Your task to perform on an android device: Open the stopwatch Image 0: 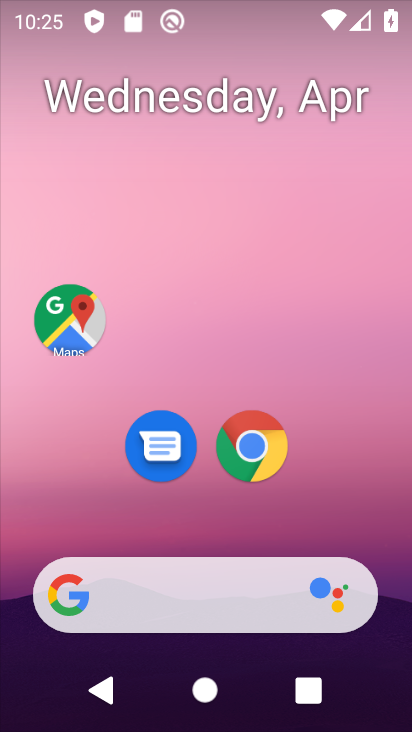
Step 0: drag from (207, 500) to (0, 414)
Your task to perform on an android device: Open the stopwatch Image 1: 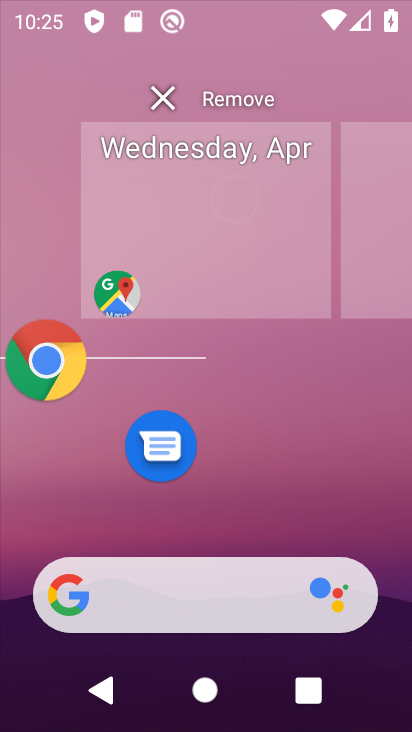
Step 1: click (182, 516)
Your task to perform on an android device: Open the stopwatch Image 2: 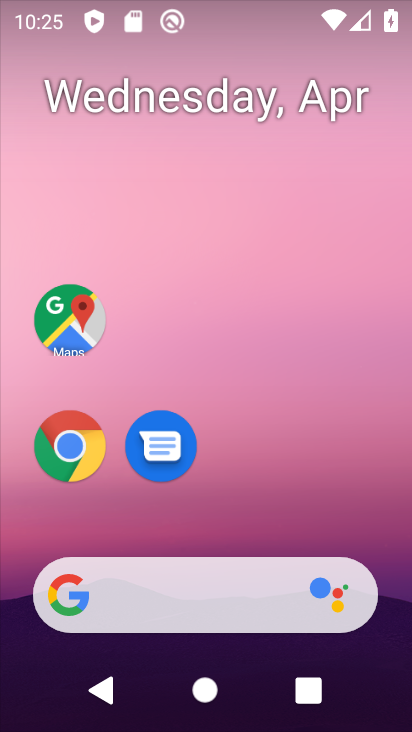
Step 2: drag from (214, 557) to (193, 93)
Your task to perform on an android device: Open the stopwatch Image 3: 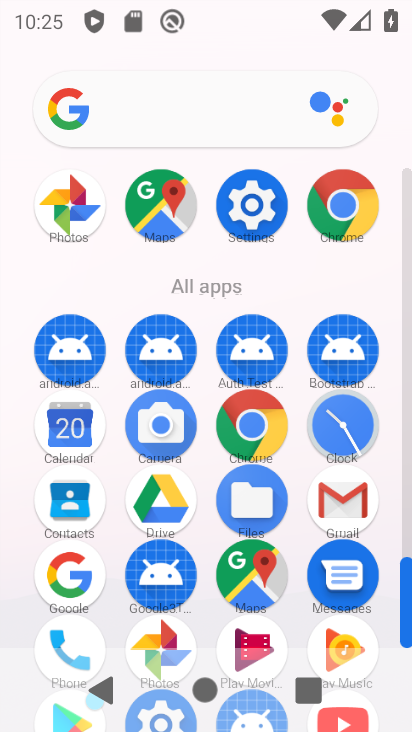
Step 3: click (346, 430)
Your task to perform on an android device: Open the stopwatch Image 4: 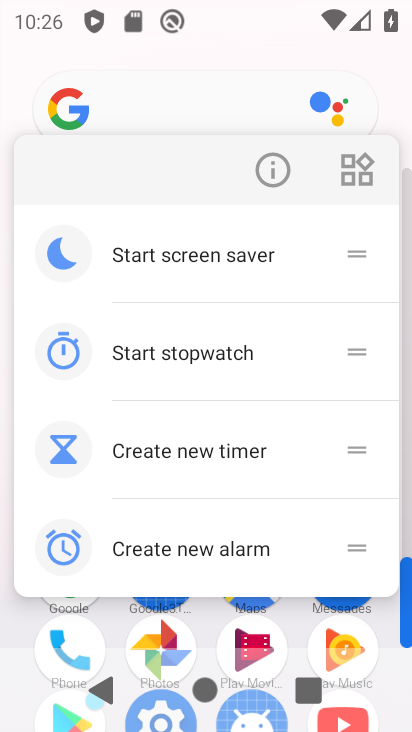
Step 4: click (266, 57)
Your task to perform on an android device: Open the stopwatch Image 5: 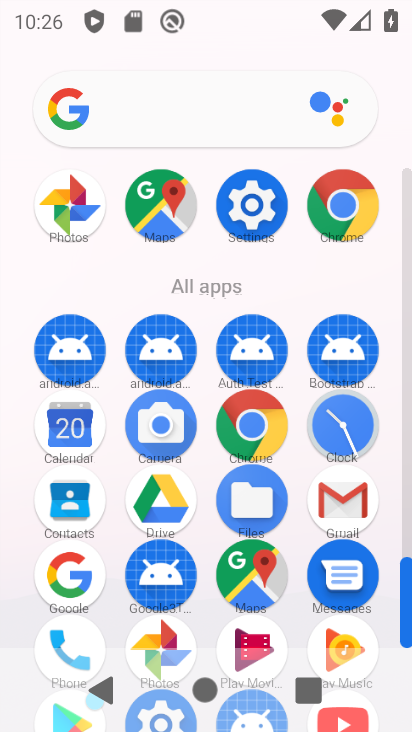
Step 5: click (350, 414)
Your task to perform on an android device: Open the stopwatch Image 6: 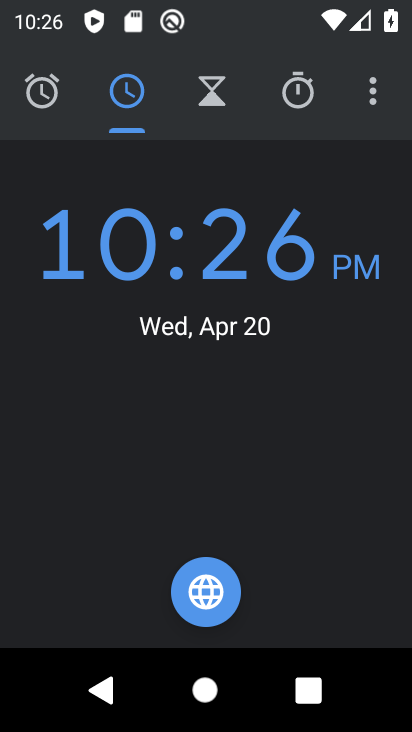
Step 6: click (312, 76)
Your task to perform on an android device: Open the stopwatch Image 7: 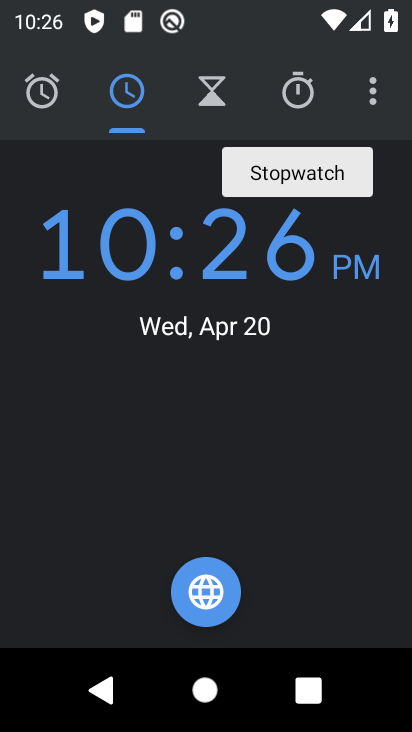
Step 7: click (294, 90)
Your task to perform on an android device: Open the stopwatch Image 8: 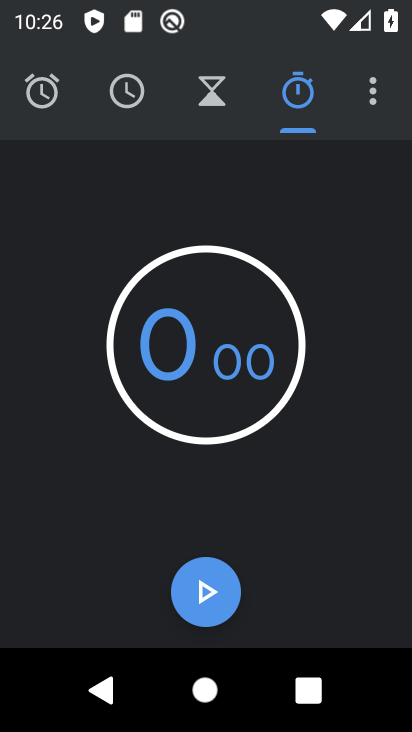
Step 8: task complete